Your task to perform on an android device: Go to internet settings Image 0: 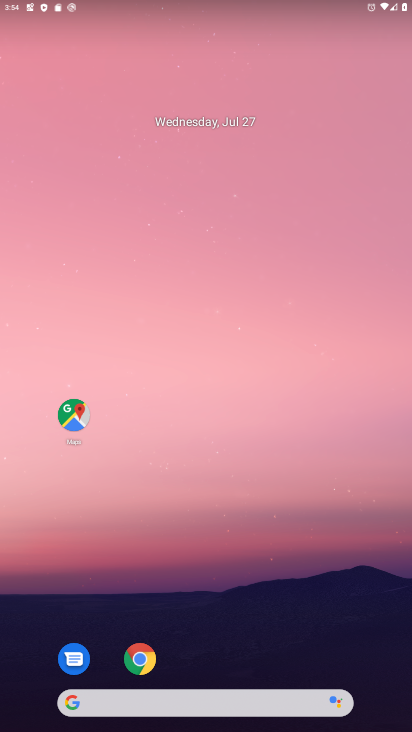
Step 0: drag from (289, 624) to (339, 40)
Your task to perform on an android device: Go to internet settings Image 1: 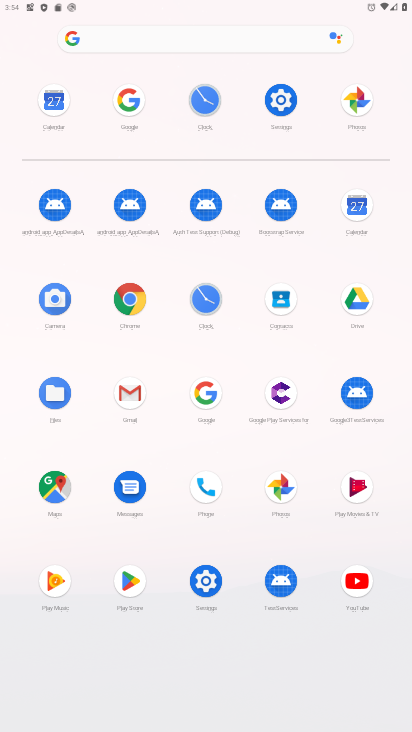
Step 1: click (280, 105)
Your task to perform on an android device: Go to internet settings Image 2: 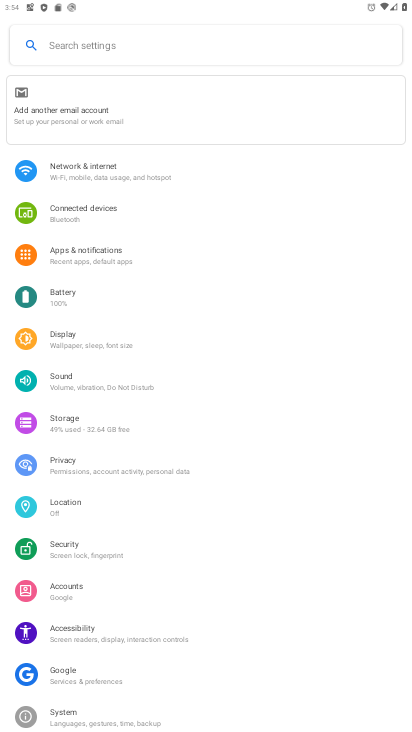
Step 2: click (152, 170)
Your task to perform on an android device: Go to internet settings Image 3: 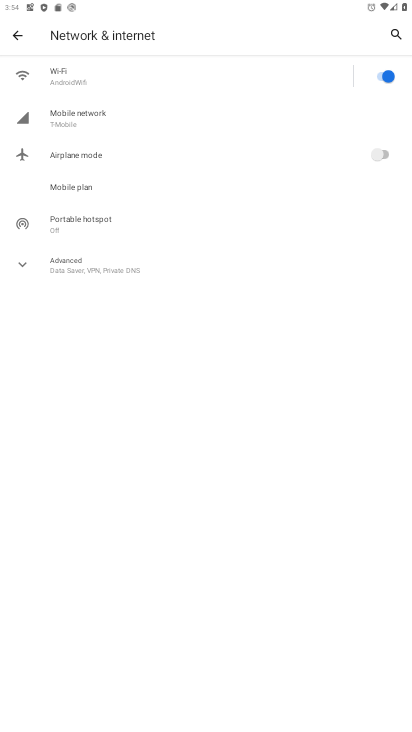
Step 3: click (89, 121)
Your task to perform on an android device: Go to internet settings Image 4: 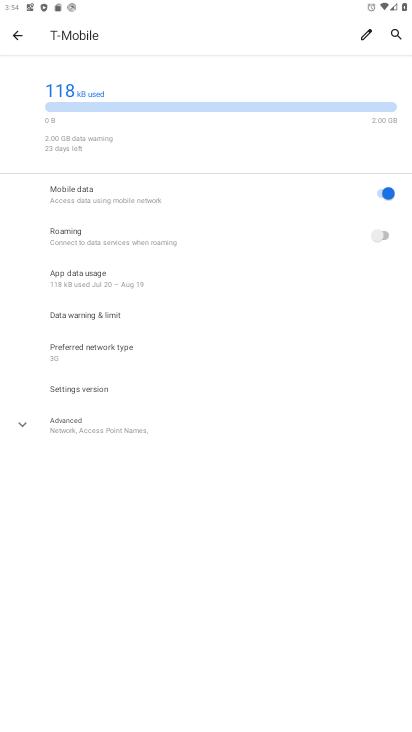
Step 4: task complete